Your task to perform on an android device: turn off wifi Image 0: 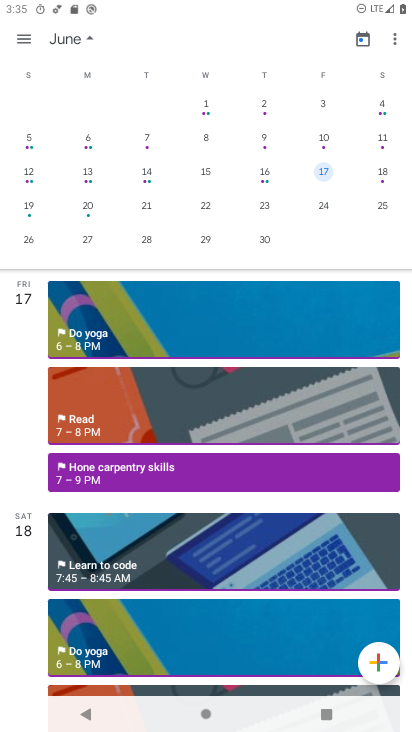
Step 0: press home button
Your task to perform on an android device: turn off wifi Image 1: 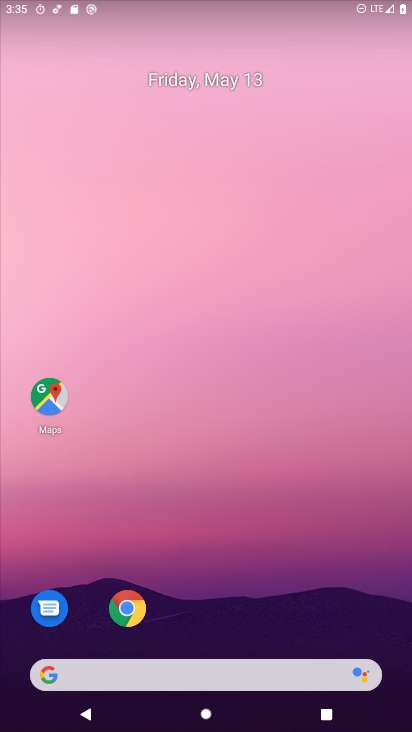
Step 1: task complete